Your task to perform on an android device: turn vacation reply on in the gmail app Image 0: 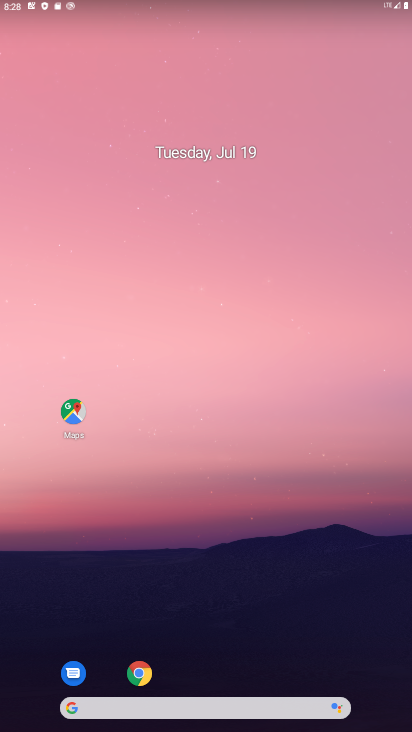
Step 0: drag from (369, 673) to (216, 9)
Your task to perform on an android device: turn vacation reply on in the gmail app Image 1: 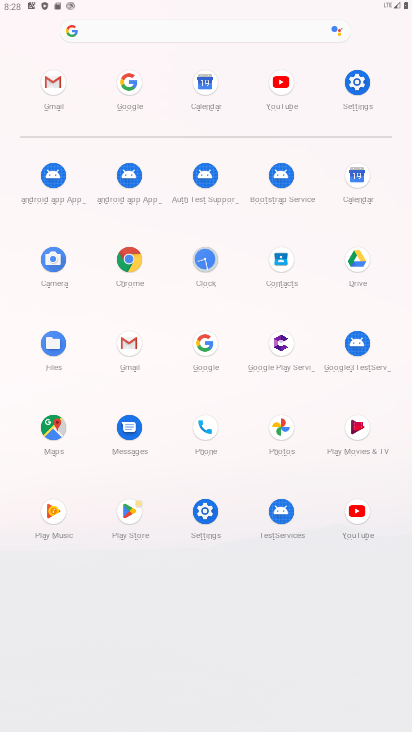
Step 1: click (119, 349)
Your task to perform on an android device: turn vacation reply on in the gmail app Image 2: 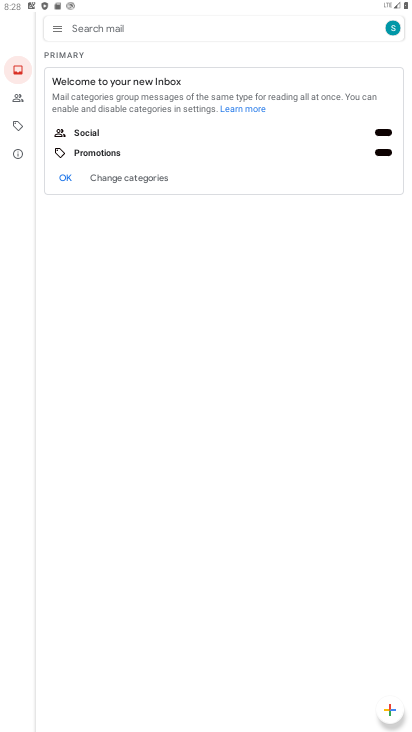
Step 2: click (53, 26)
Your task to perform on an android device: turn vacation reply on in the gmail app Image 3: 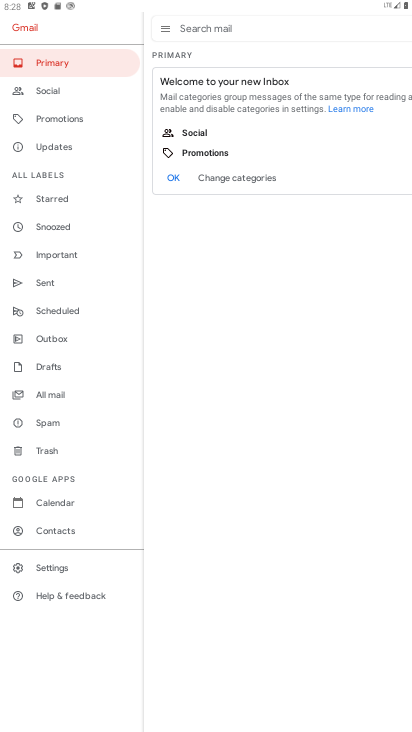
Step 3: click (71, 570)
Your task to perform on an android device: turn vacation reply on in the gmail app Image 4: 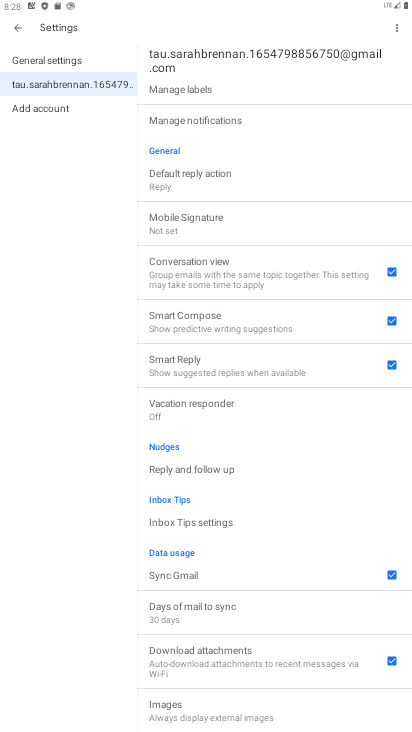
Step 4: click (185, 417)
Your task to perform on an android device: turn vacation reply on in the gmail app Image 5: 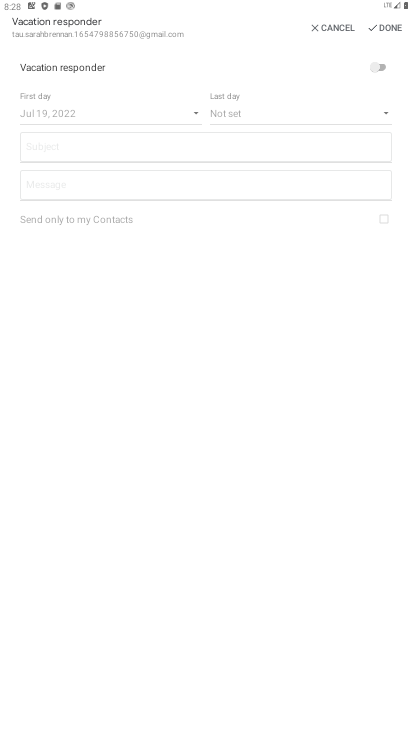
Step 5: click (381, 67)
Your task to perform on an android device: turn vacation reply on in the gmail app Image 6: 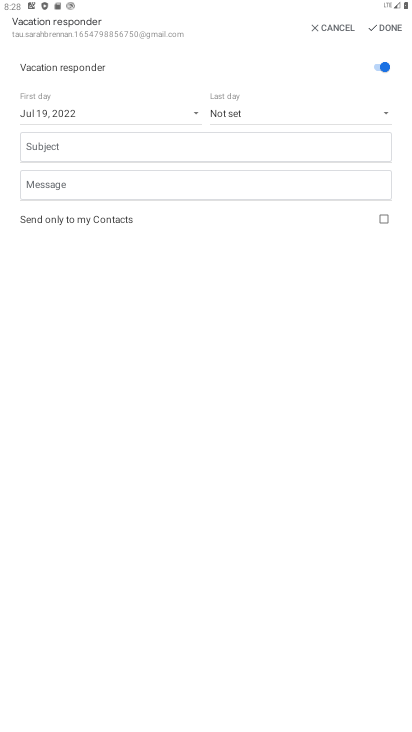
Step 6: task complete